Your task to perform on an android device: delete browsing data in the chrome app Image 0: 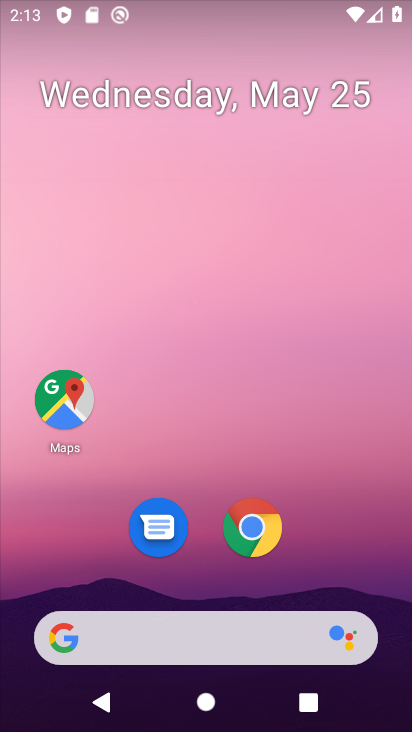
Step 0: click (244, 514)
Your task to perform on an android device: delete browsing data in the chrome app Image 1: 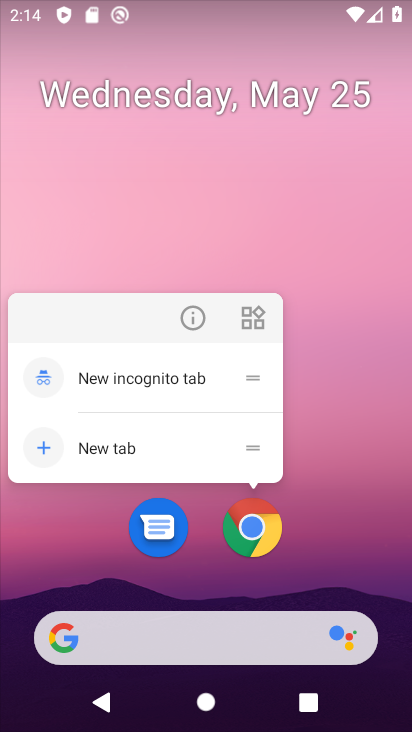
Step 1: click (251, 521)
Your task to perform on an android device: delete browsing data in the chrome app Image 2: 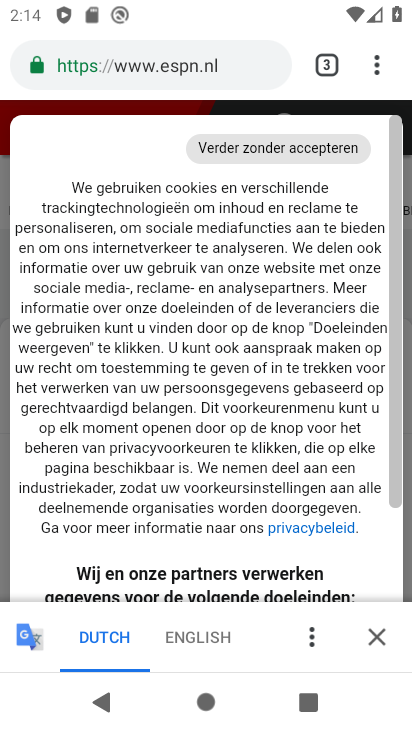
Step 2: drag from (371, 80) to (148, 362)
Your task to perform on an android device: delete browsing data in the chrome app Image 3: 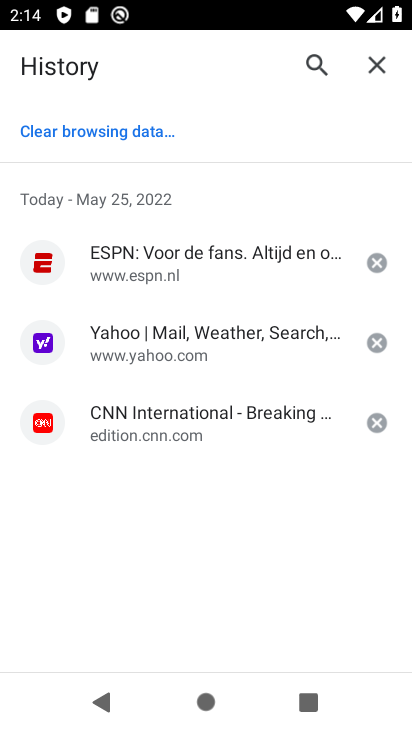
Step 3: click (106, 126)
Your task to perform on an android device: delete browsing data in the chrome app Image 4: 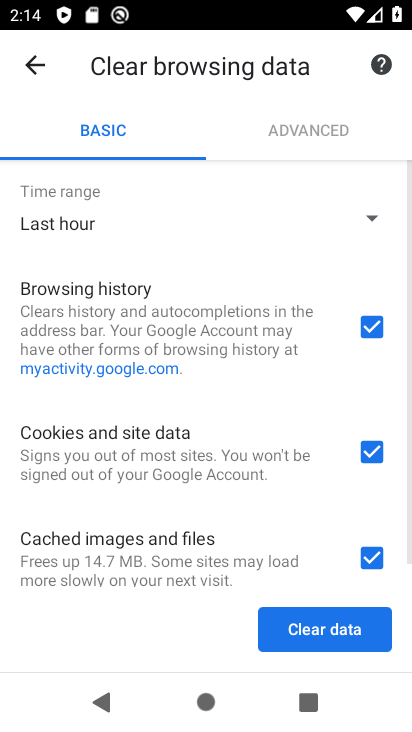
Step 4: click (295, 631)
Your task to perform on an android device: delete browsing data in the chrome app Image 5: 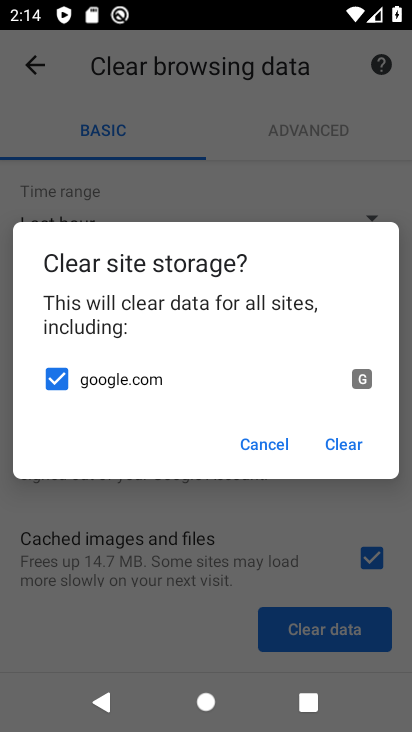
Step 5: click (338, 443)
Your task to perform on an android device: delete browsing data in the chrome app Image 6: 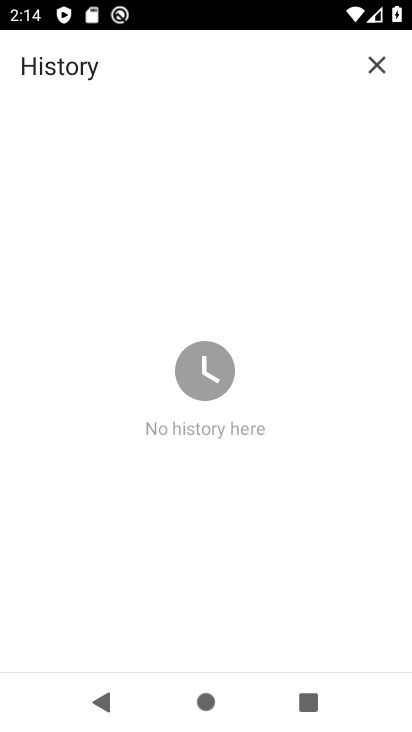
Step 6: task complete